Your task to perform on an android device: Go to Android settings Image 0: 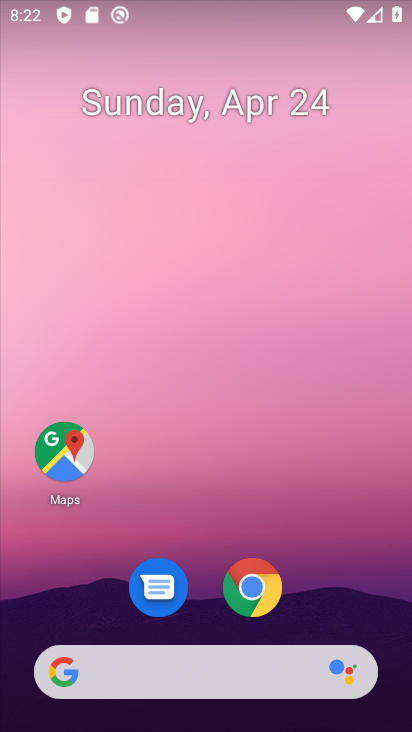
Step 0: drag from (231, 482) to (371, 2)
Your task to perform on an android device: Go to Android settings Image 1: 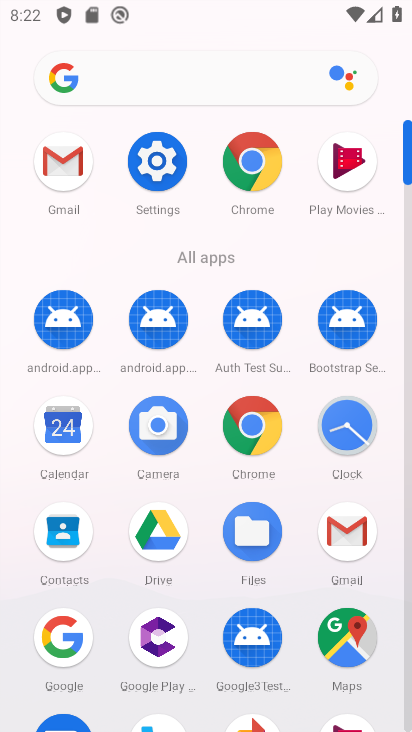
Step 1: click (162, 156)
Your task to perform on an android device: Go to Android settings Image 2: 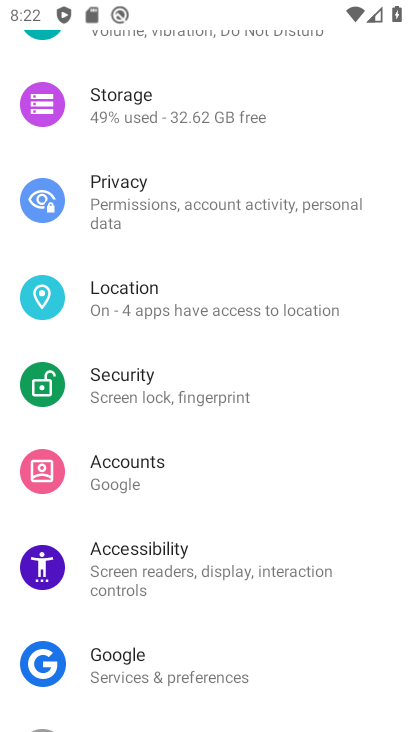
Step 2: drag from (207, 653) to (283, 61)
Your task to perform on an android device: Go to Android settings Image 3: 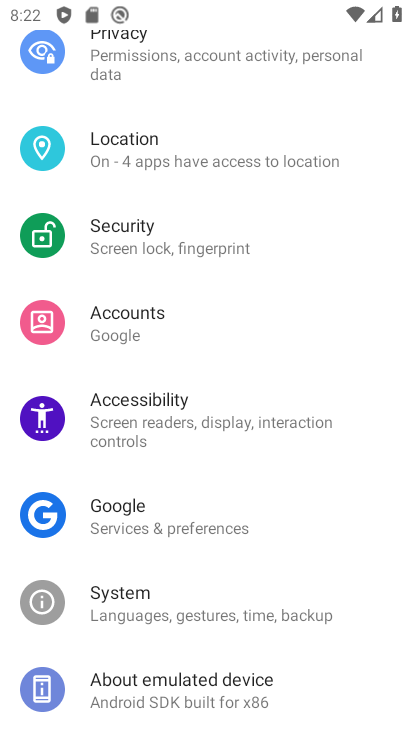
Step 3: drag from (209, 584) to (301, 18)
Your task to perform on an android device: Go to Android settings Image 4: 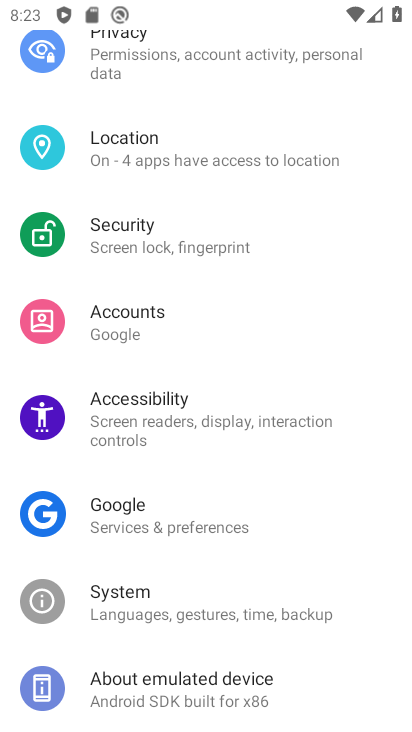
Step 4: click (134, 692)
Your task to perform on an android device: Go to Android settings Image 5: 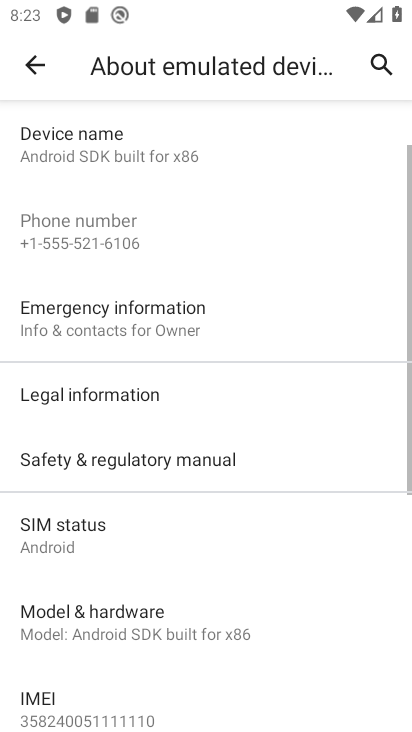
Step 5: drag from (232, 375) to (306, 107)
Your task to perform on an android device: Go to Android settings Image 6: 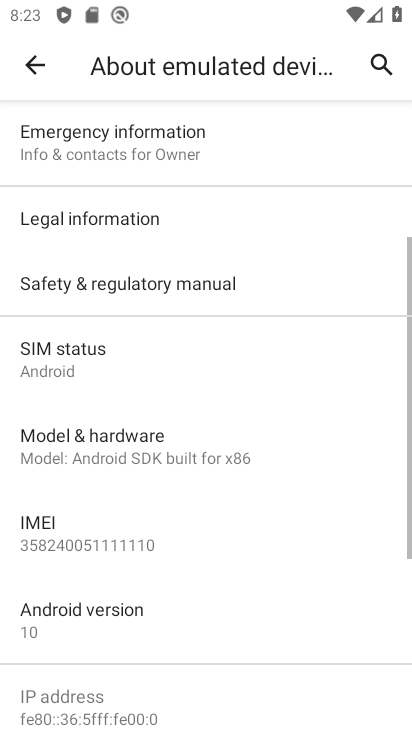
Step 6: click (131, 630)
Your task to perform on an android device: Go to Android settings Image 7: 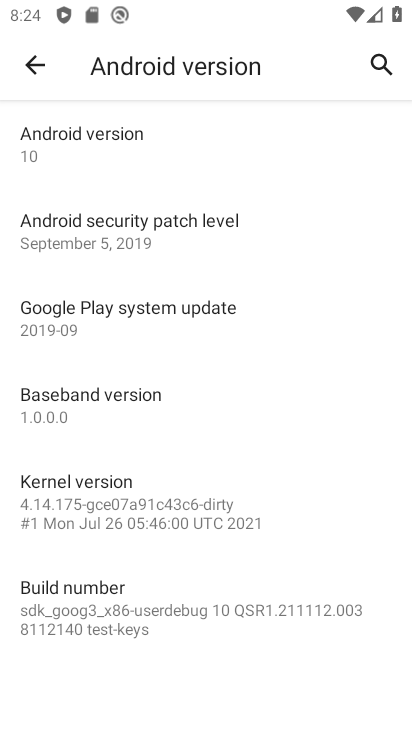
Step 7: task complete